Your task to perform on an android device: Search for "dell xps" on walmart, select the first entry, and add it to the cart. Image 0: 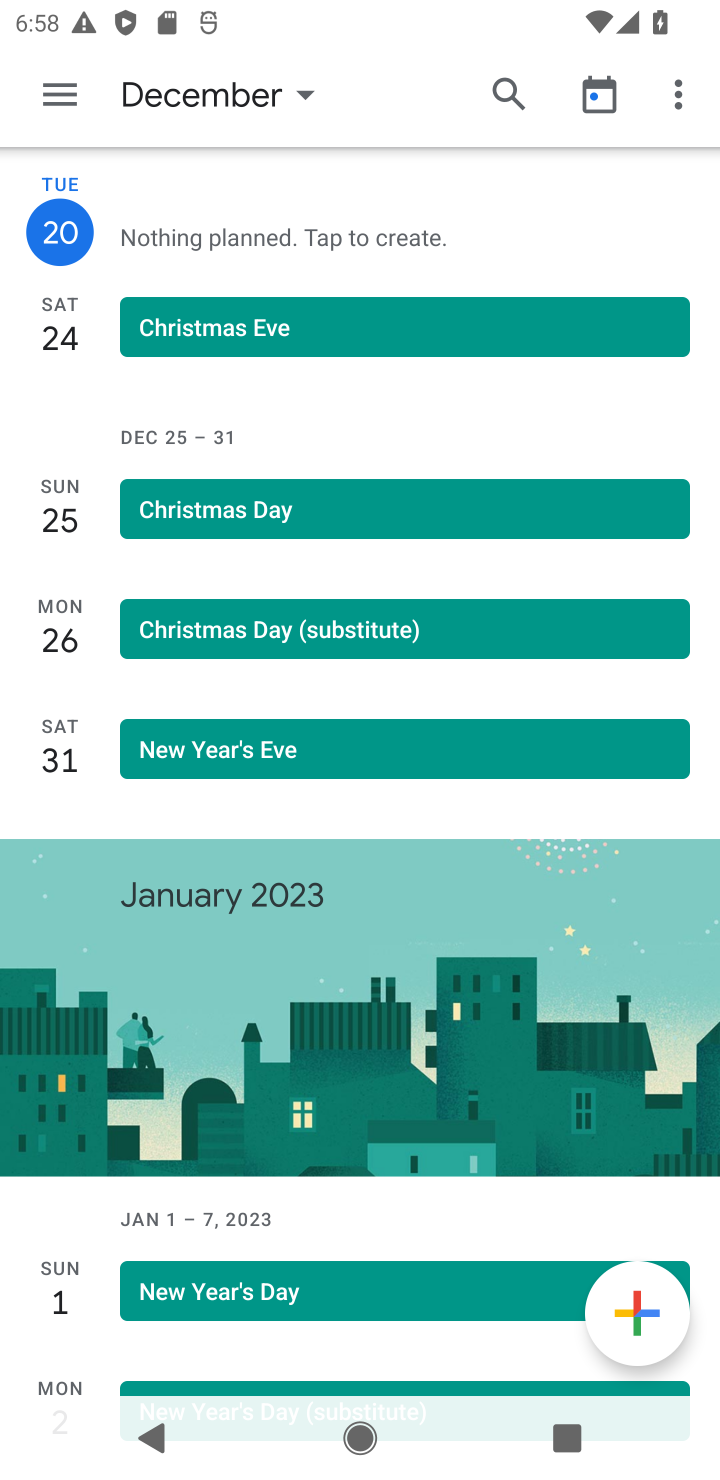
Step 0: press home button
Your task to perform on an android device: Search for "dell xps" on walmart, select the first entry, and add it to the cart. Image 1: 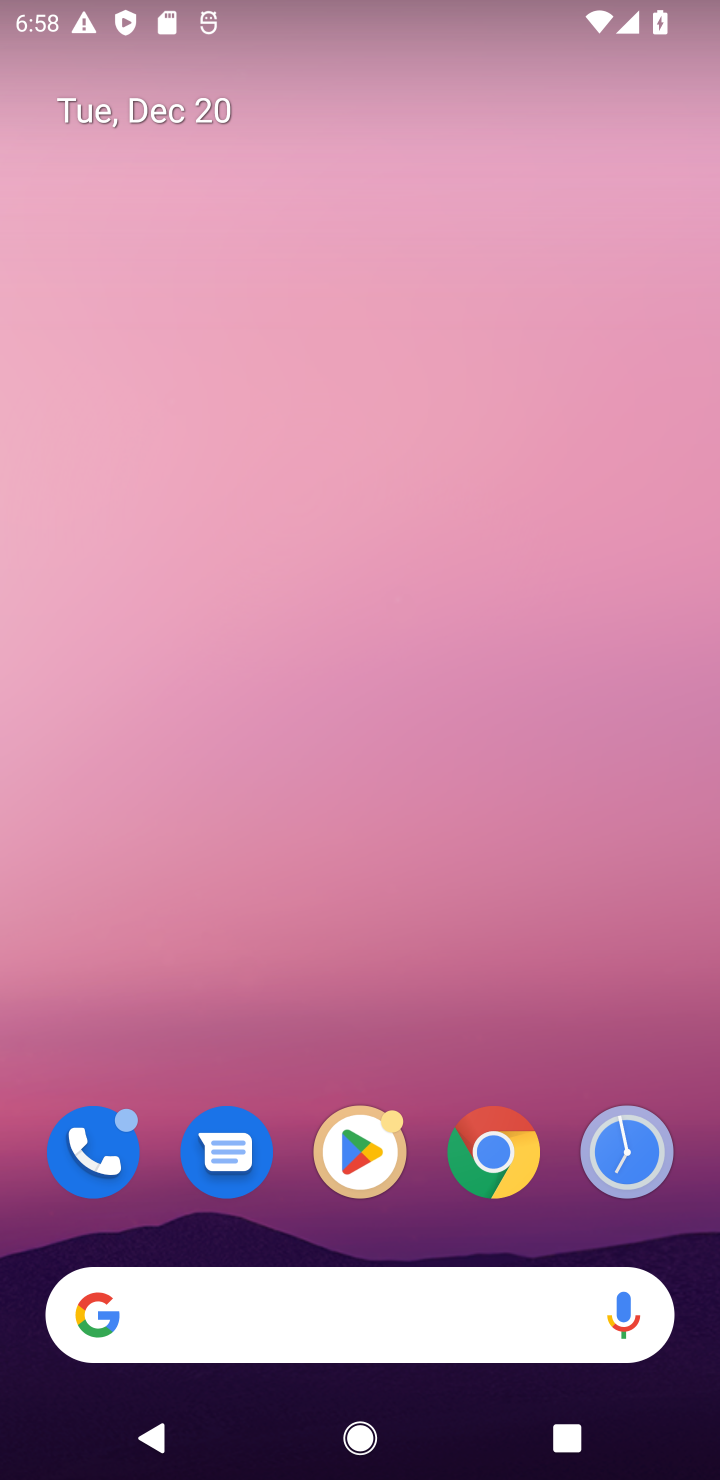
Step 1: click (495, 1165)
Your task to perform on an android device: Search for "dell xps" on walmart, select the first entry, and add it to the cart. Image 2: 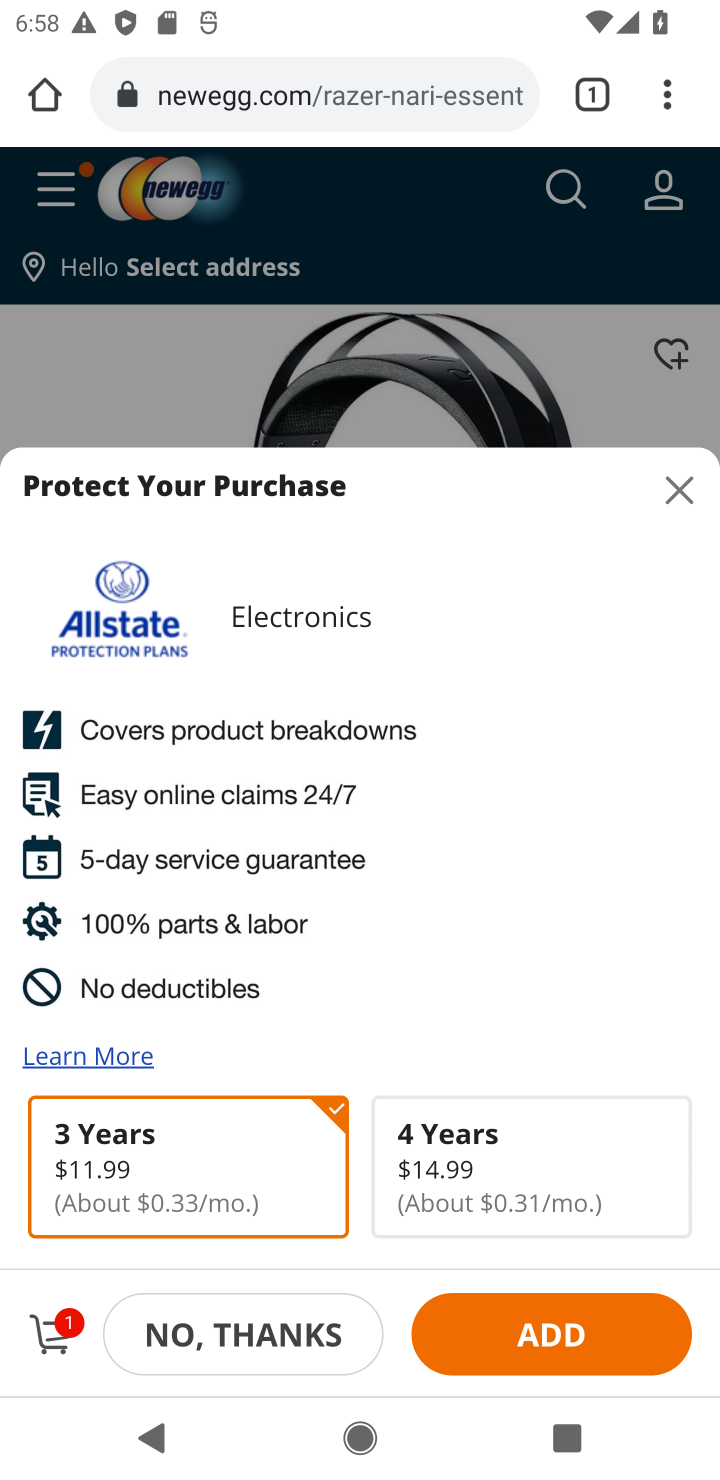
Step 2: click (677, 483)
Your task to perform on an android device: Search for "dell xps" on walmart, select the first entry, and add it to the cart. Image 3: 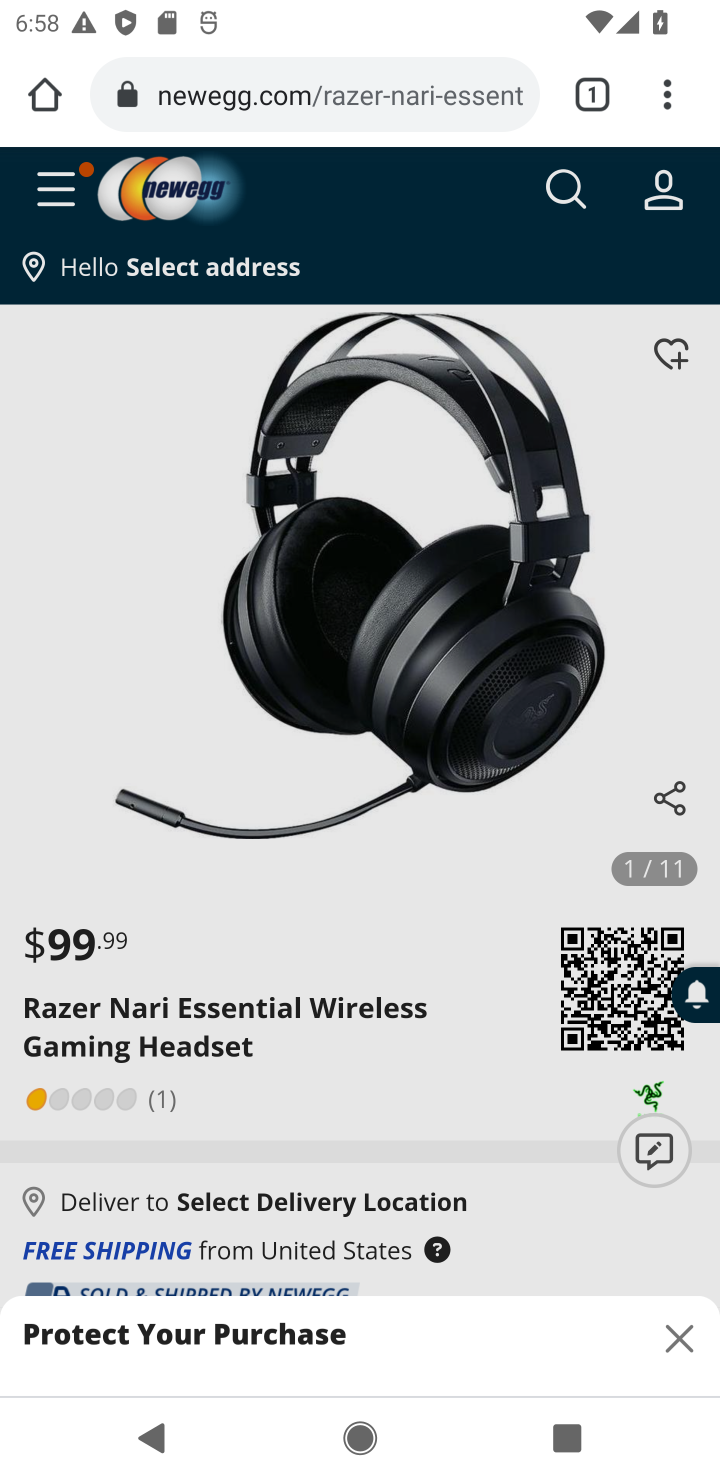
Step 3: click (594, 83)
Your task to perform on an android device: Search for "dell xps" on walmart, select the first entry, and add it to the cart. Image 4: 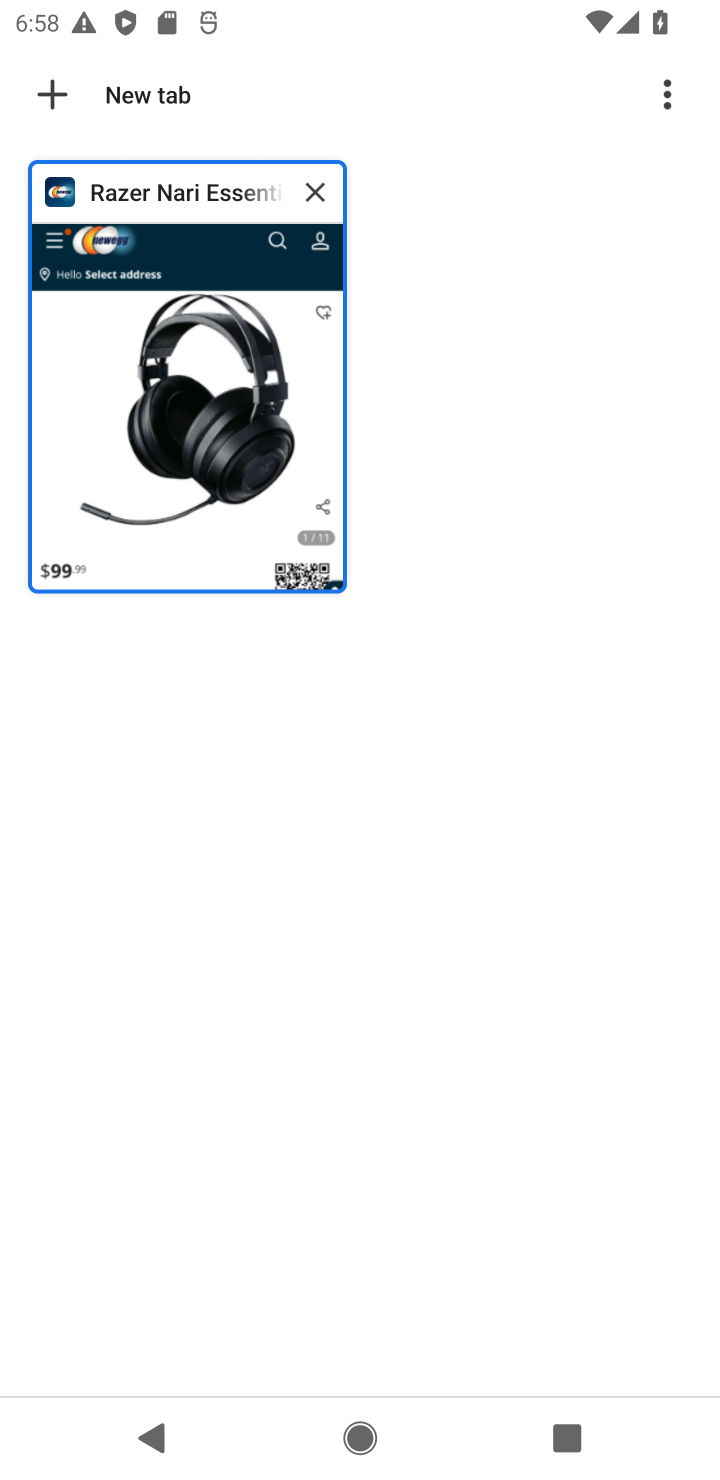
Step 4: click (44, 99)
Your task to perform on an android device: Search for "dell xps" on walmart, select the first entry, and add it to the cart. Image 5: 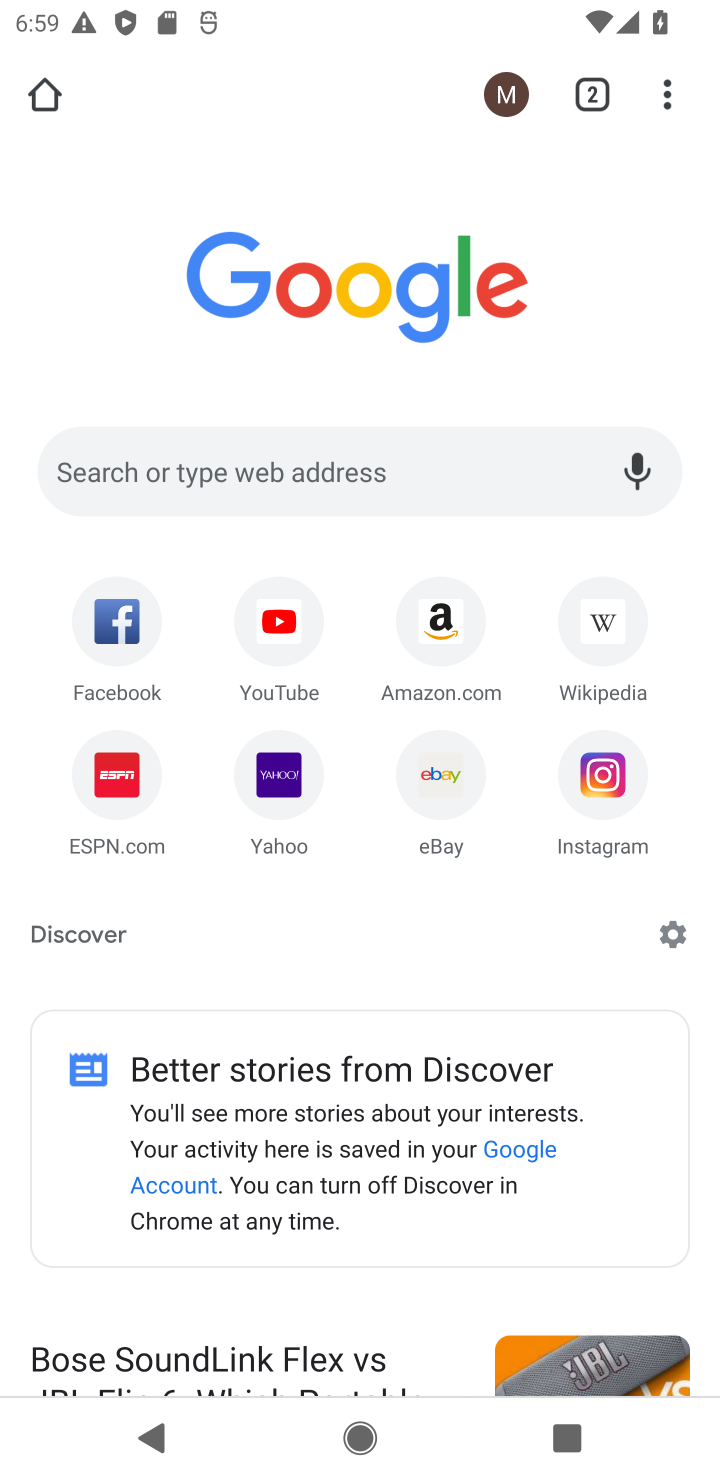
Step 5: click (151, 425)
Your task to perform on an android device: Search for "dell xps" on walmart, select the first entry, and add it to the cart. Image 6: 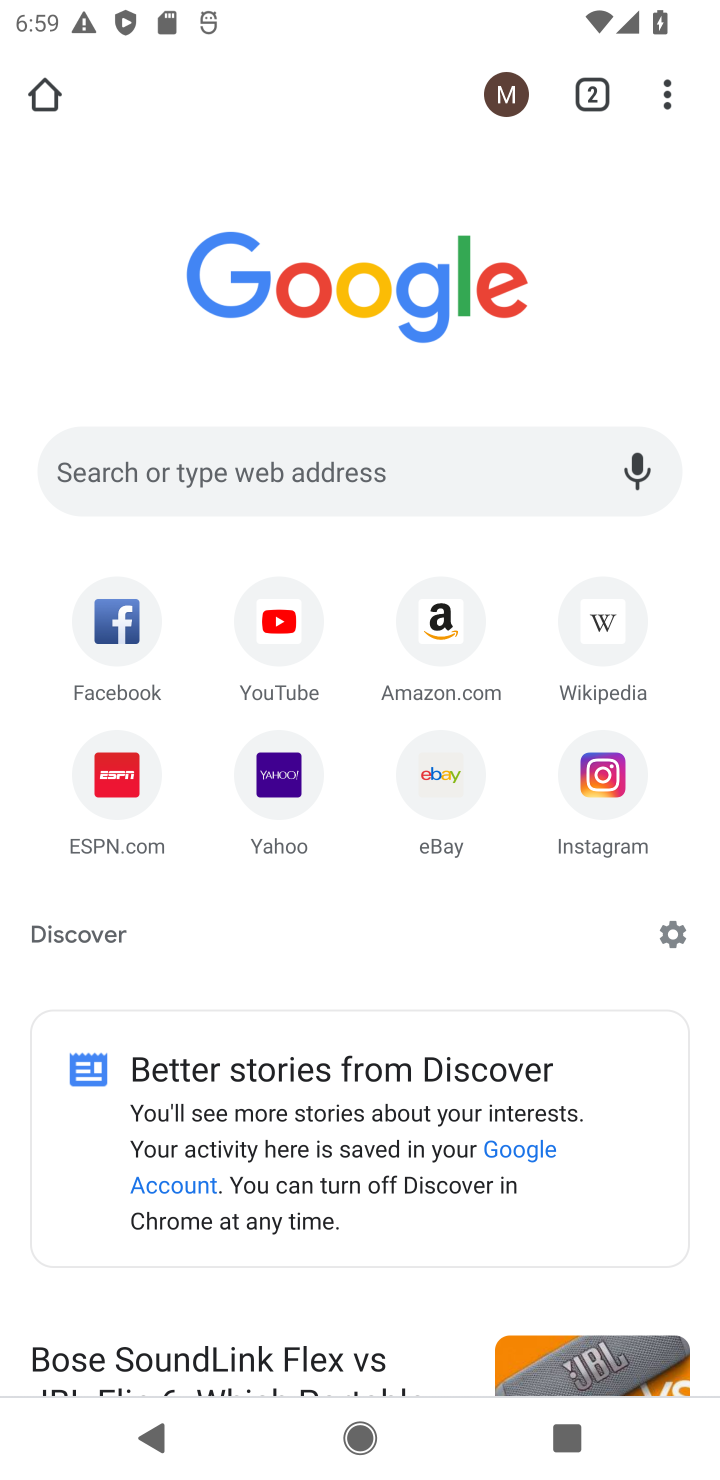
Step 6: click (155, 472)
Your task to perform on an android device: Search for "dell xps" on walmart, select the first entry, and add it to the cart. Image 7: 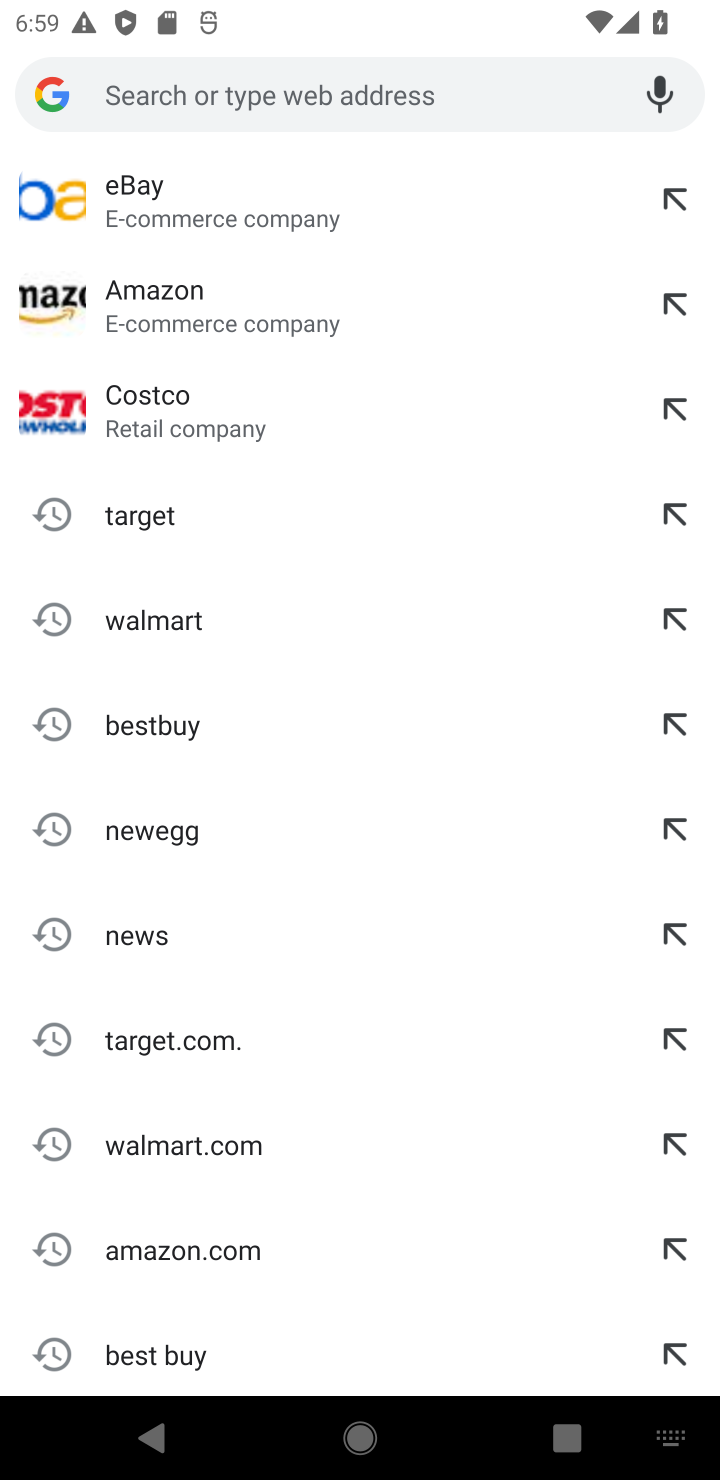
Step 7: click (183, 603)
Your task to perform on an android device: Search for "dell xps" on walmart, select the first entry, and add it to the cart. Image 8: 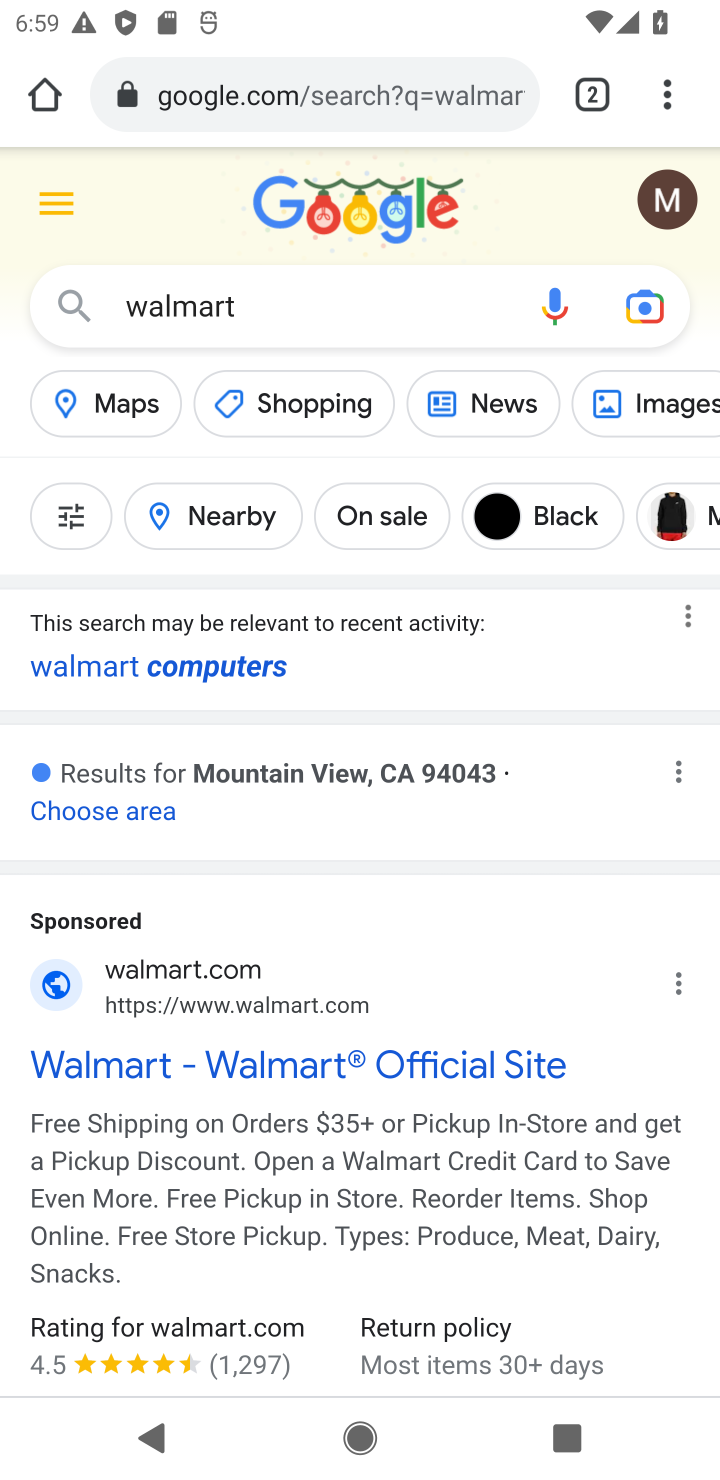
Step 8: click (229, 1067)
Your task to perform on an android device: Search for "dell xps" on walmart, select the first entry, and add it to the cart. Image 9: 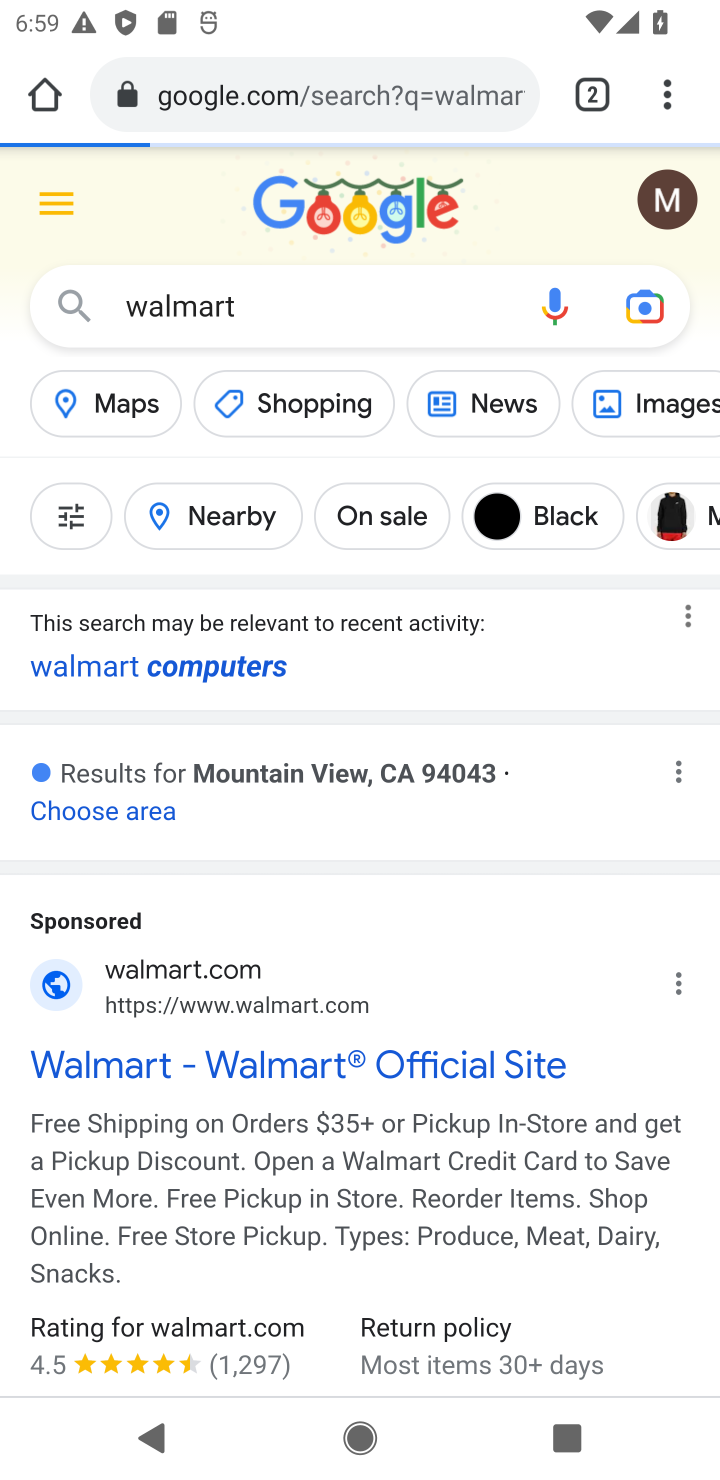
Step 9: click (299, 1072)
Your task to perform on an android device: Search for "dell xps" on walmart, select the first entry, and add it to the cart. Image 10: 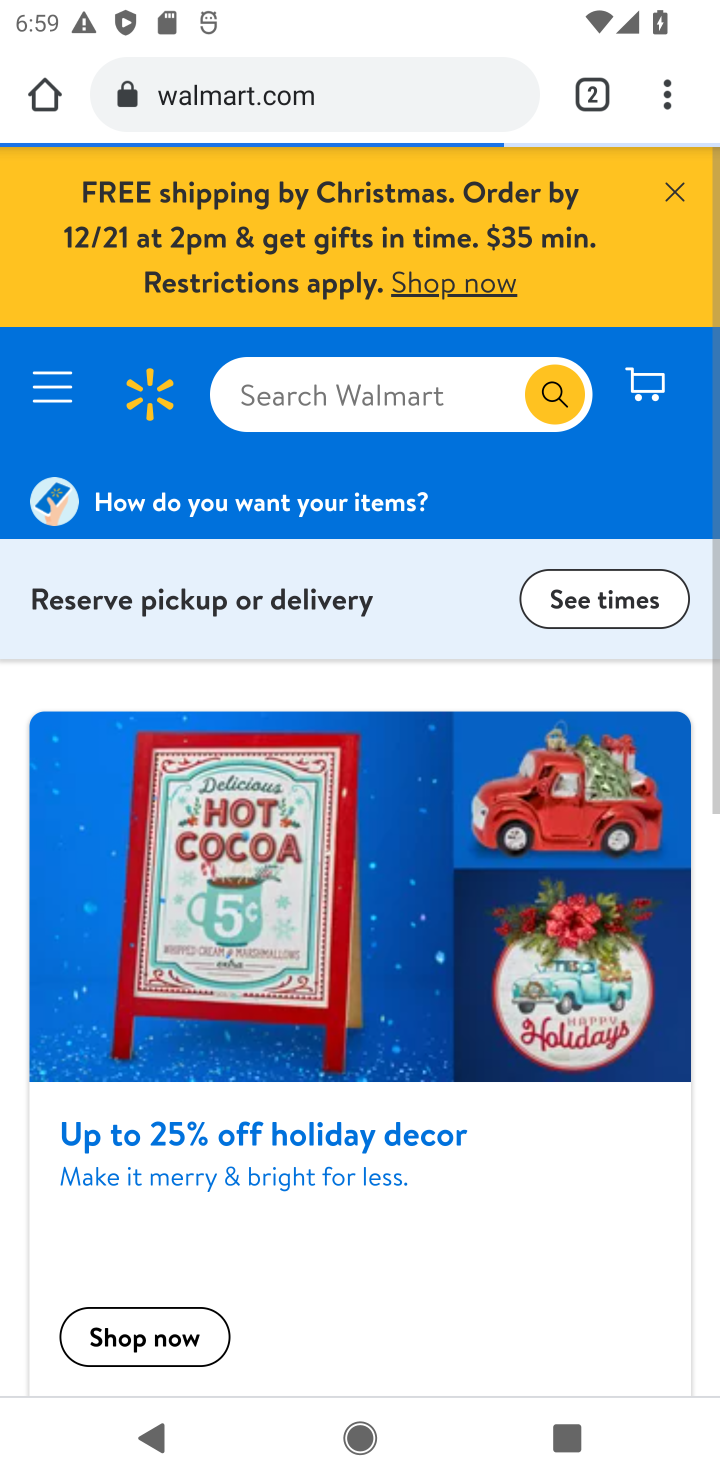
Step 10: click (365, 386)
Your task to perform on an android device: Search for "dell xps" on walmart, select the first entry, and add it to the cart. Image 11: 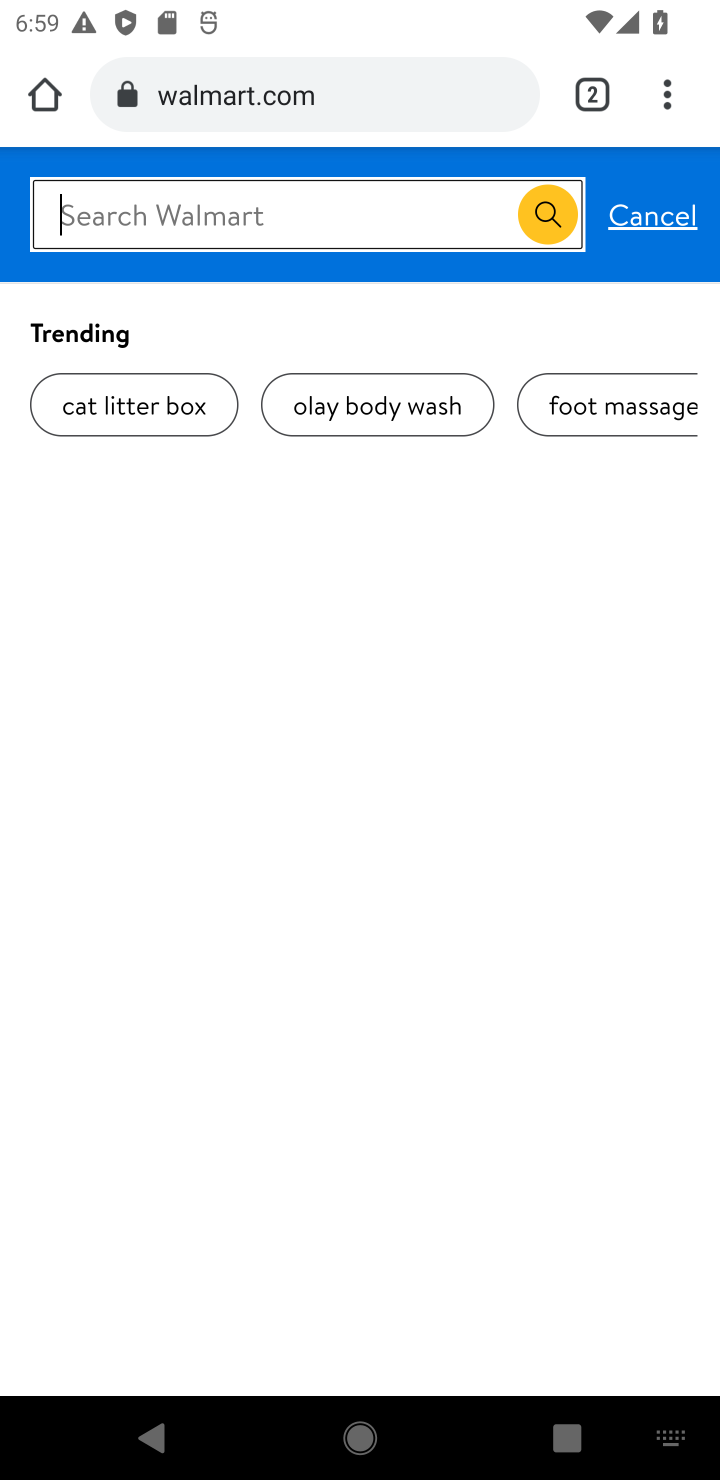
Step 11: type "dell xps"
Your task to perform on an android device: Search for "dell xps" on walmart, select the first entry, and add it to the cart. Image 12: 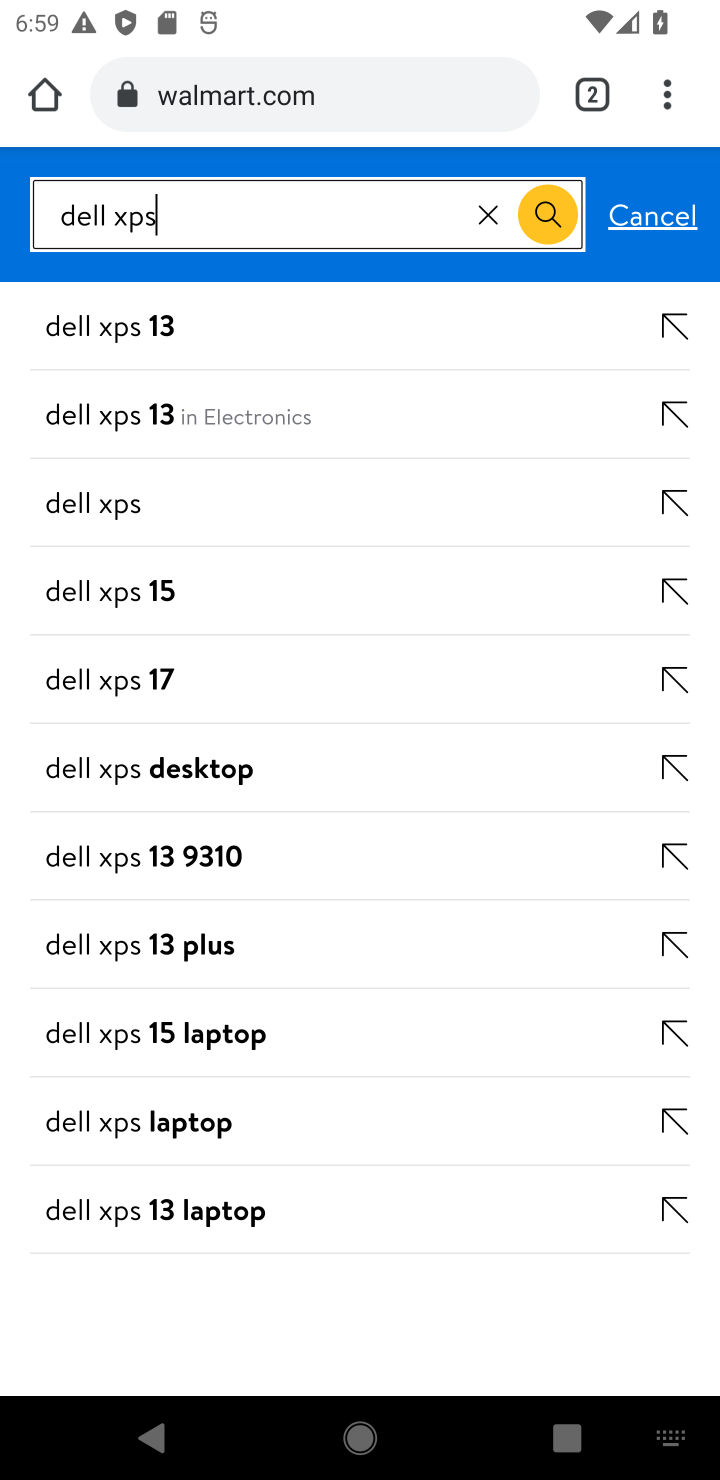
Step 12: click (130, 404)
Your task to perform on an android device: Search for "dell xps" on walmart, select the first entry, and add it to the cart. Image 13: 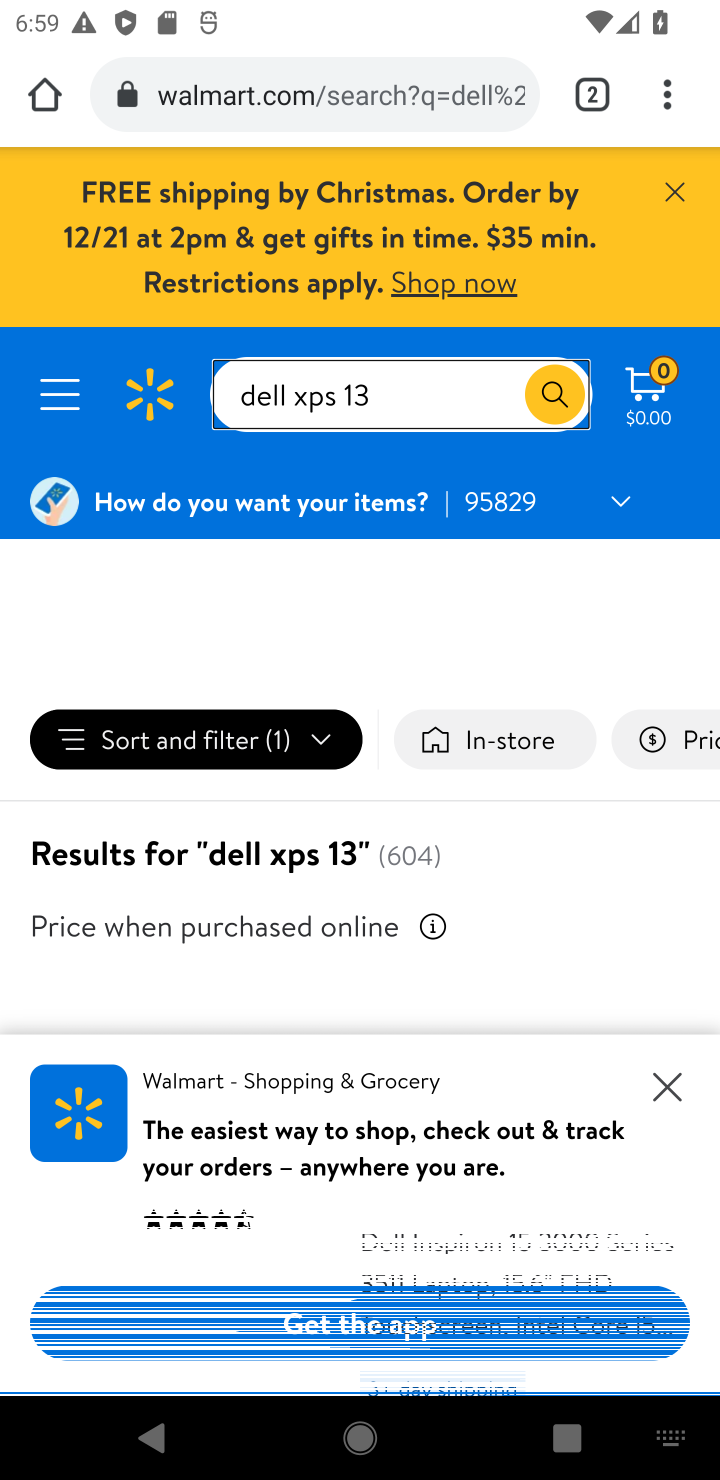
Step 13: click (660, 1069)
Your task to perform on an android device: Search for "dell xps" on walmart, select the first entry, and add it to the cart. Image 14: 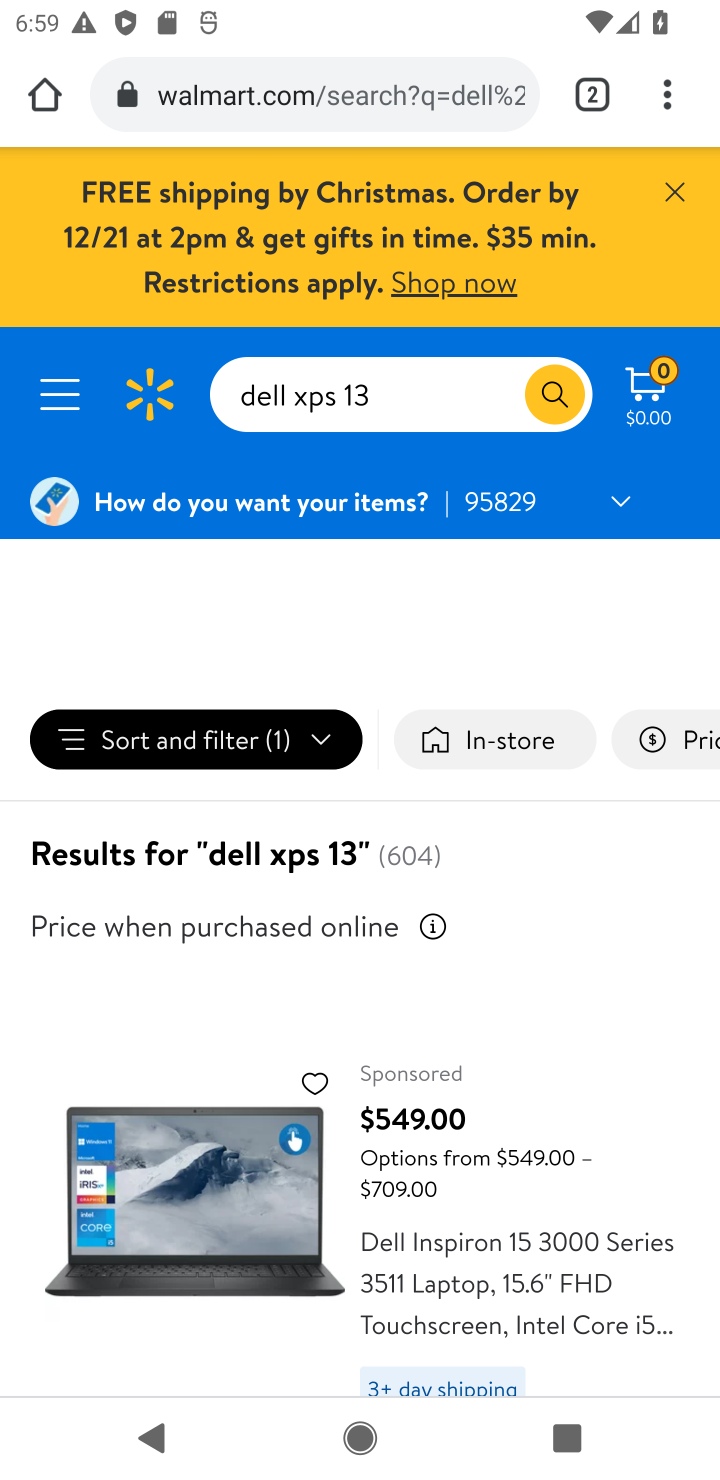
Step 14: drag from (543, 1216) to (578, 883)
Your task to perform on an android device: Search for "dell xps" on walmart, select the first entry, and add it to the cart. Image 15: 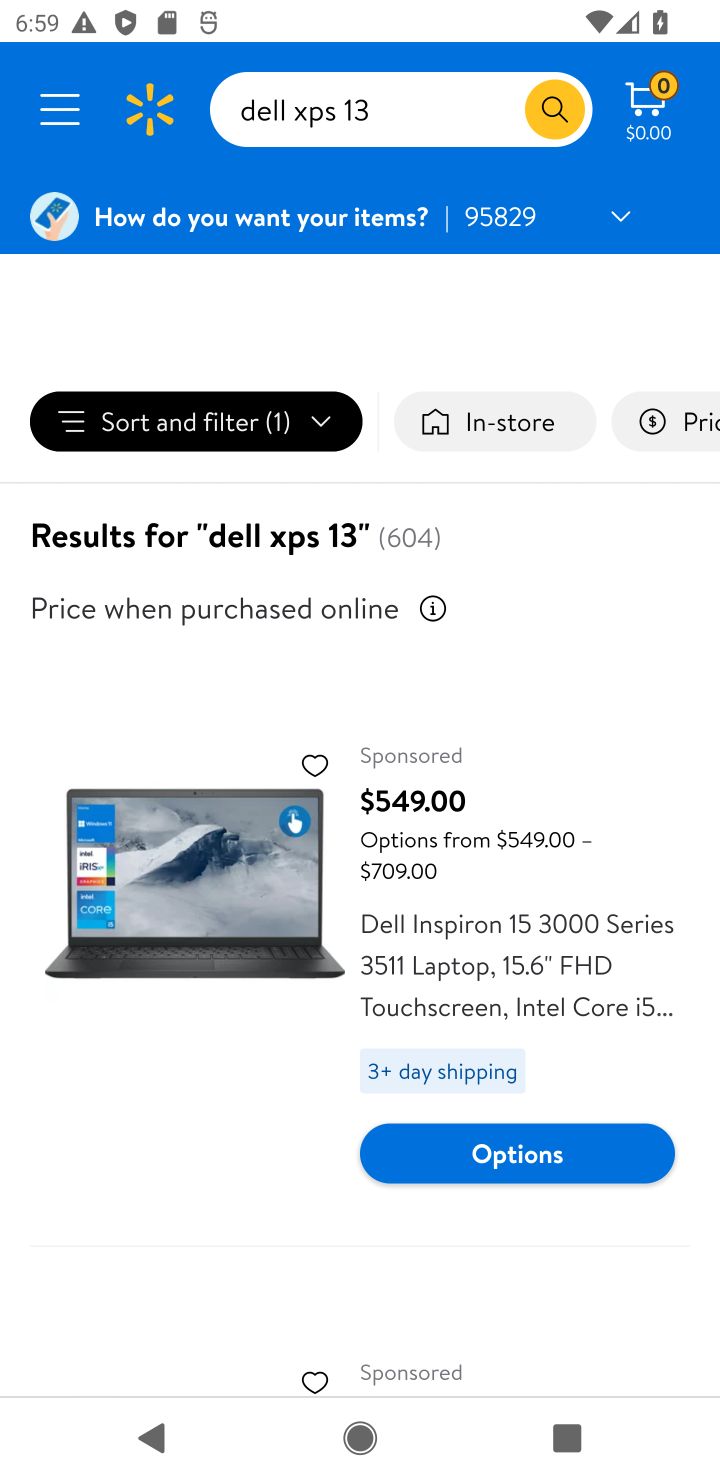
Step 15: drag from (347, 1230) to (433, 637)
Your task to perform on an android device: Search for "dell xps" on walmart, select the first entry, and add it to the cart. Image 16: 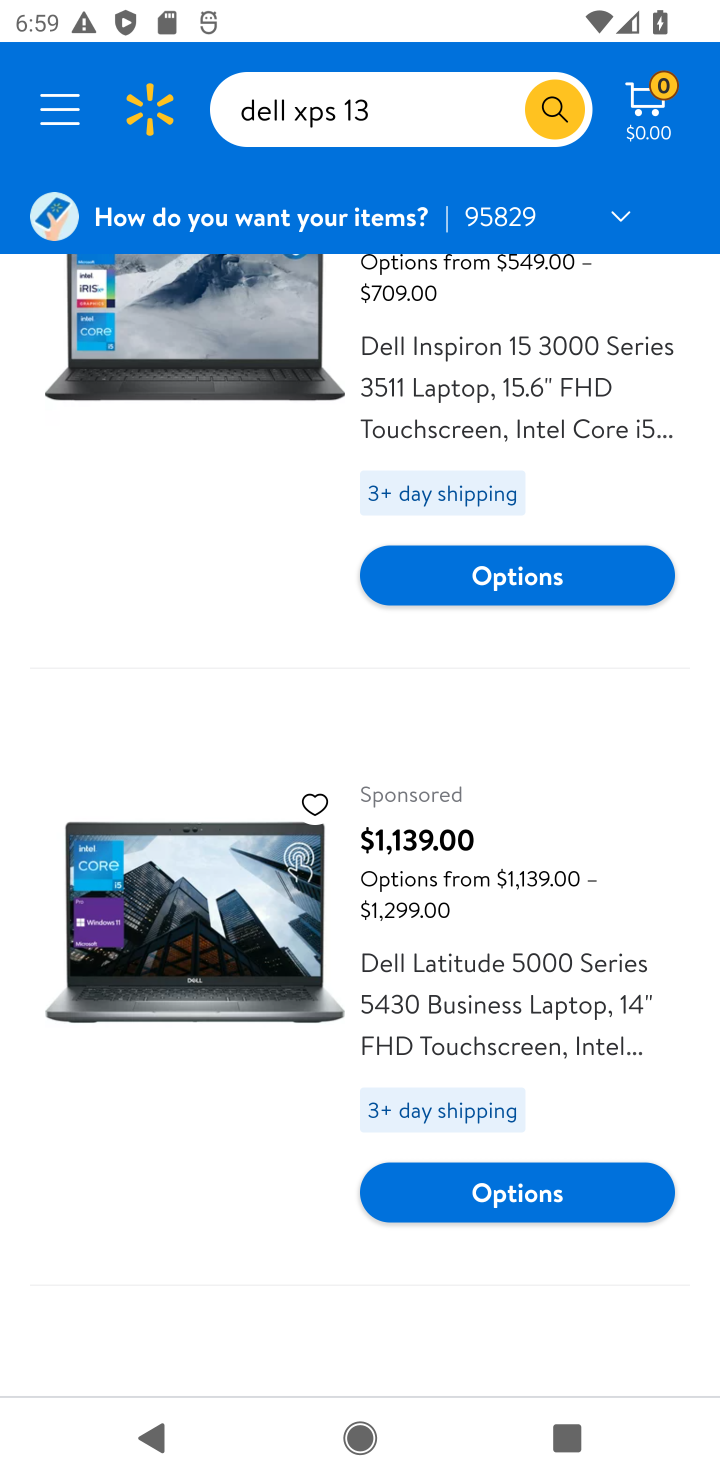
Step 16: drag from (294, 1163) to (455, 430)
Your task to perform on an android device: Search for "dell xps" on walmart, select the first entry, and add it to the cart. Image 17: 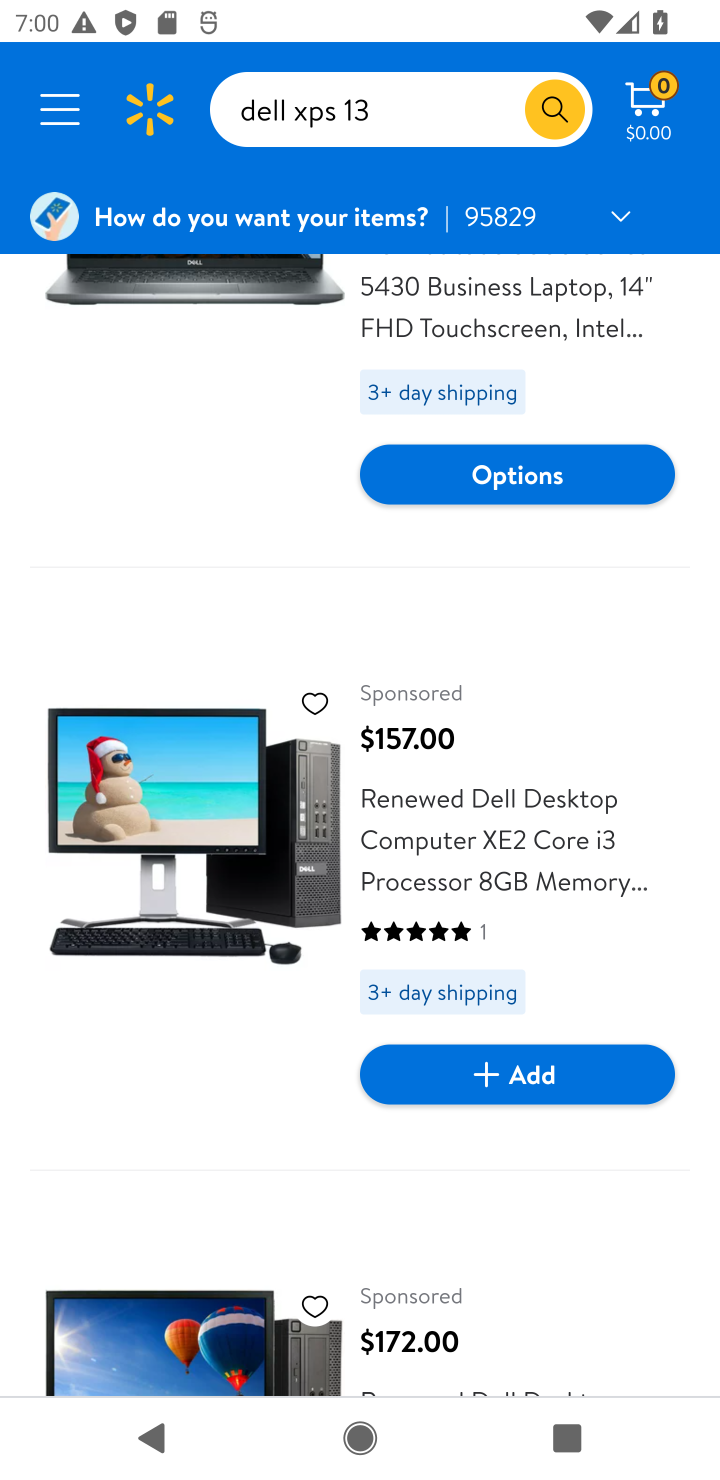
Step 17: drag from (258, 1072) to (432, 78)
Your task to perform on an android device: Search for "dell xps" on walmart, select the first entry, and add it to the cart. Image 18: 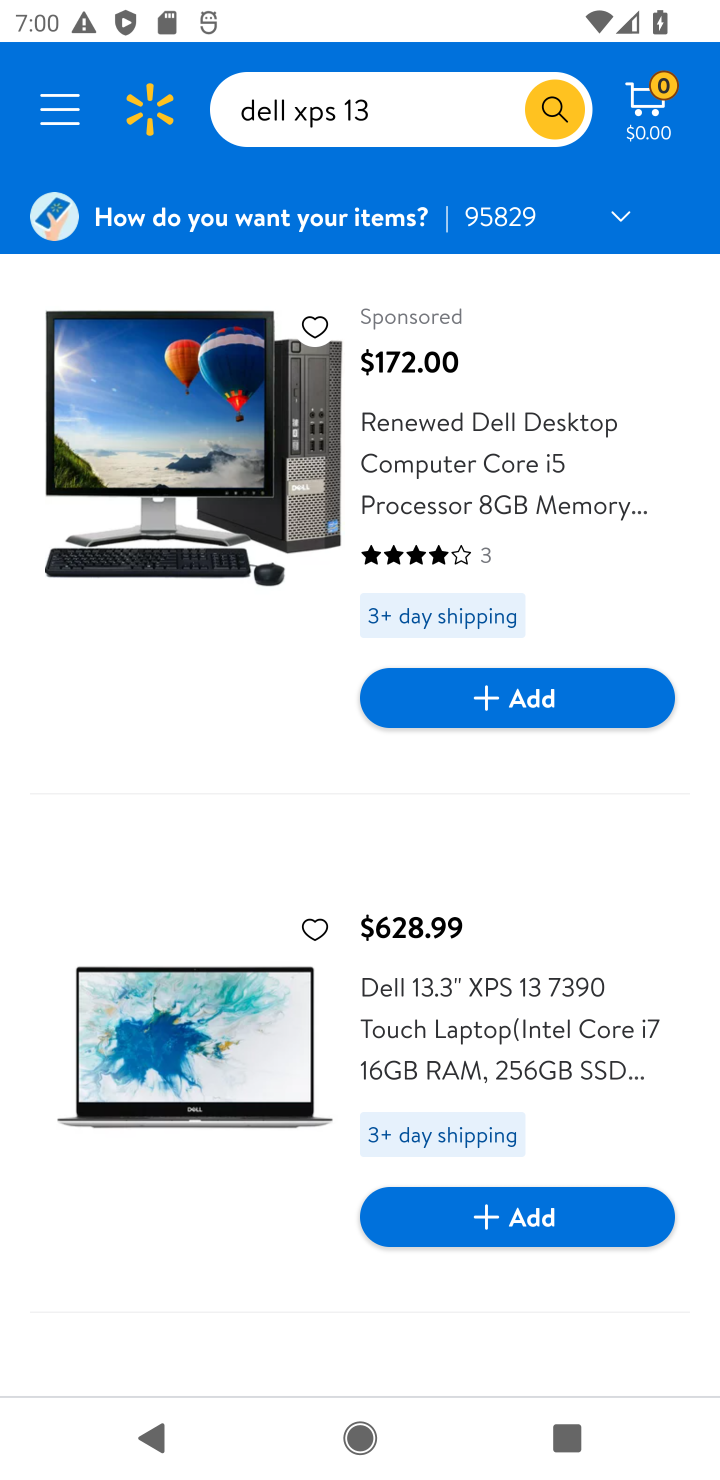
Step 18: click (501, 1204)
Your task to perform on an android device: Search for "dell xps" on walmart, select the first entry, and add it to the cart. Image 19: 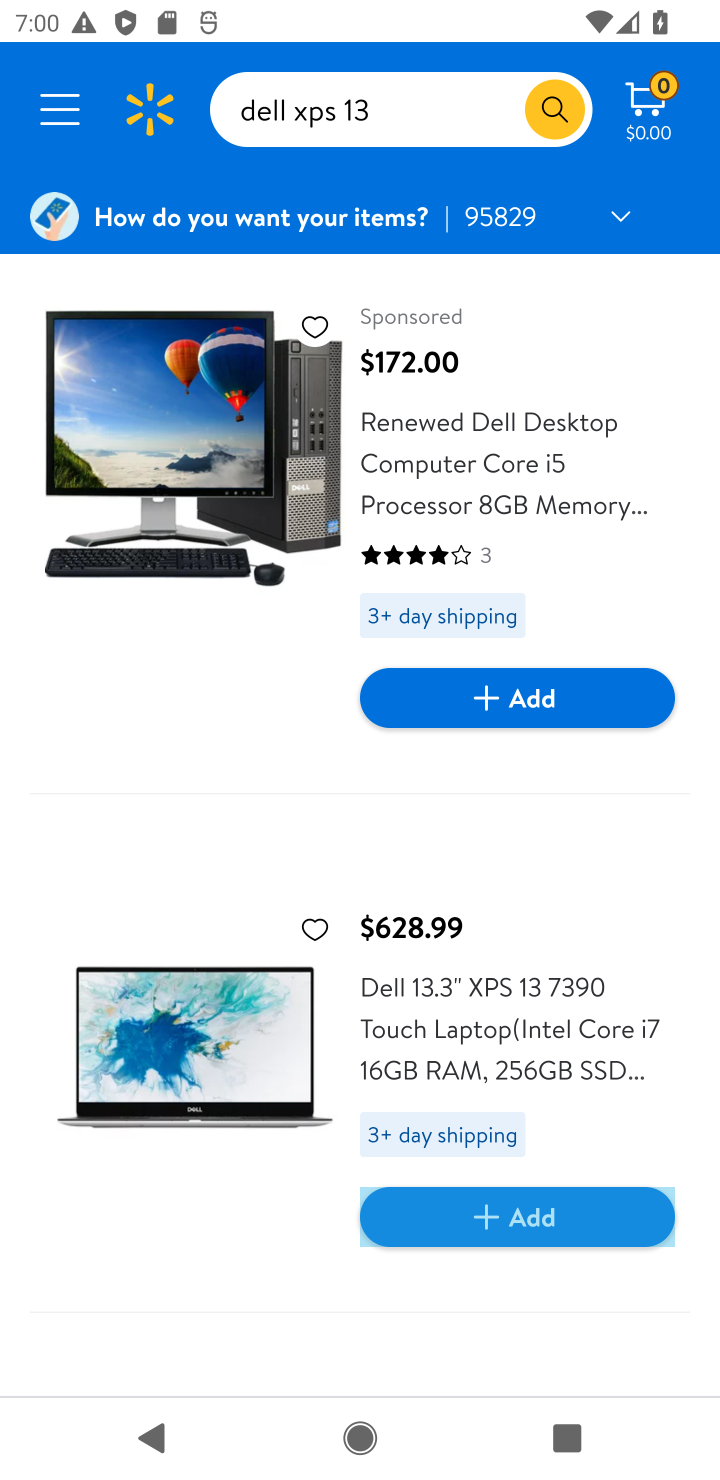
Step 19: click (526, 1212)
Your task to perform on an android device: Search for "dell xps" on walmart, select the first entry, and add it to the cart. Image 20: 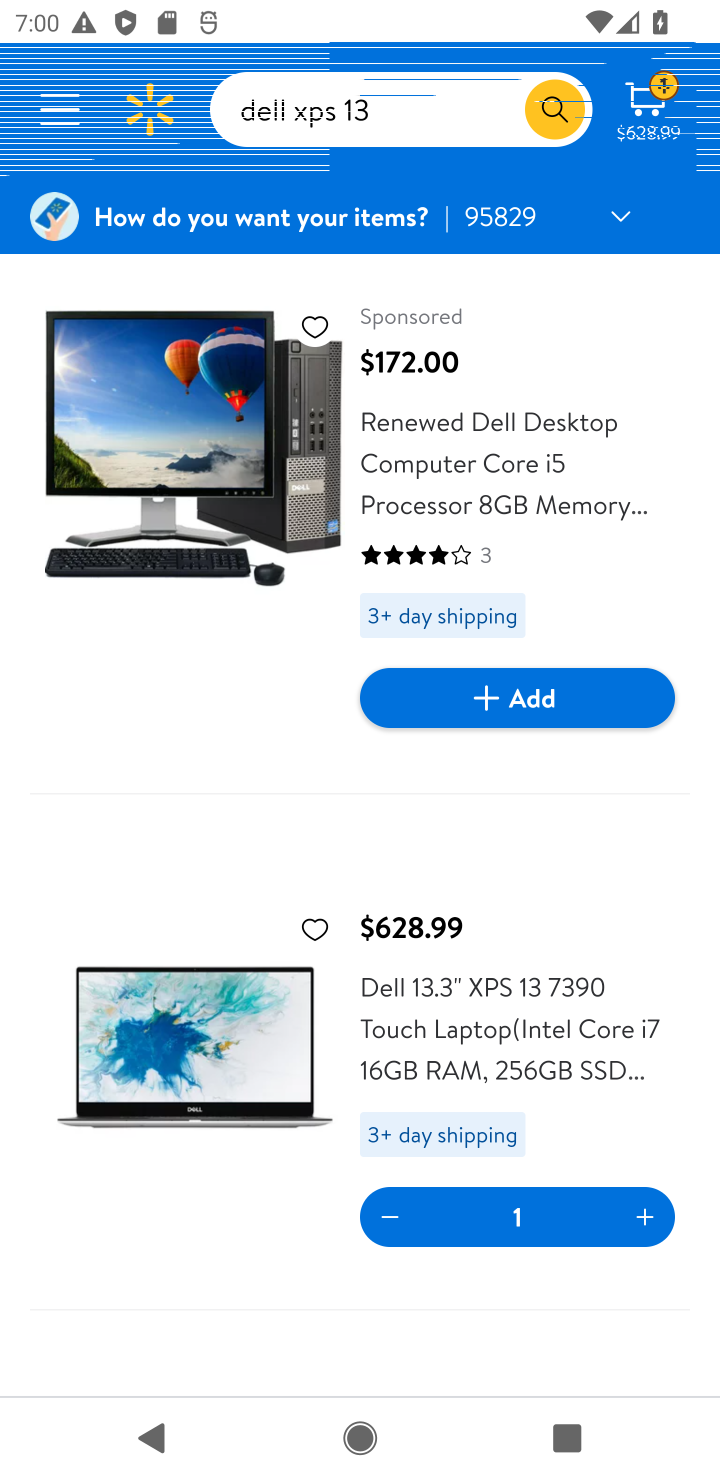
Step 20: task complete